Your task to perform on an android device: Open Reddit.com Image 0: 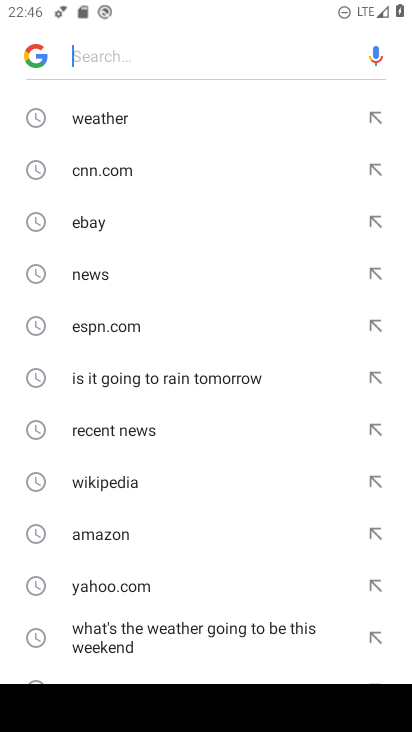
Step 0: press home button
Your task to perform on an android device: Open Reddit.com Image 1: 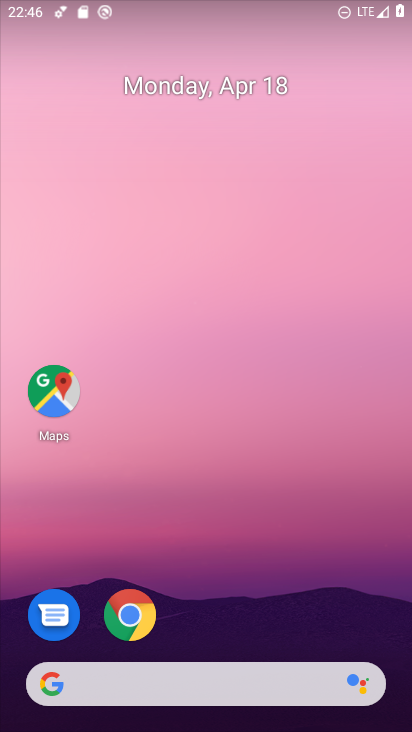
Step 1: click (134, 625)
Your task to perform on an android device: Open Reddit.com Image 2: 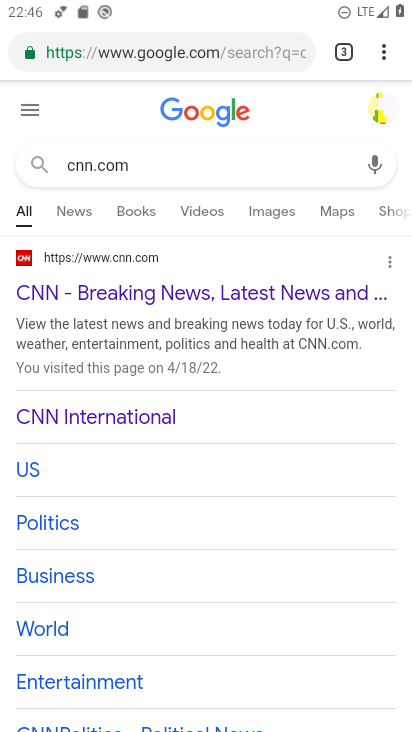
Step 2: click (109, 46)
Your task to perform on an android device: Open Reddit.com Image 3: 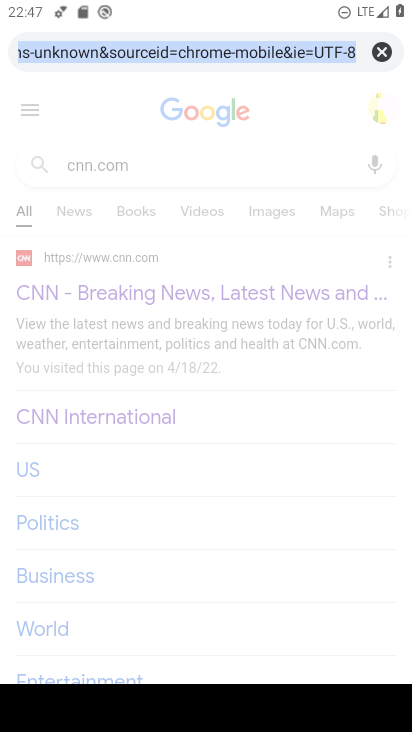
Step 3: click (375, 47)
Your task to perform on an android device: Open Reddit.com Image 4: 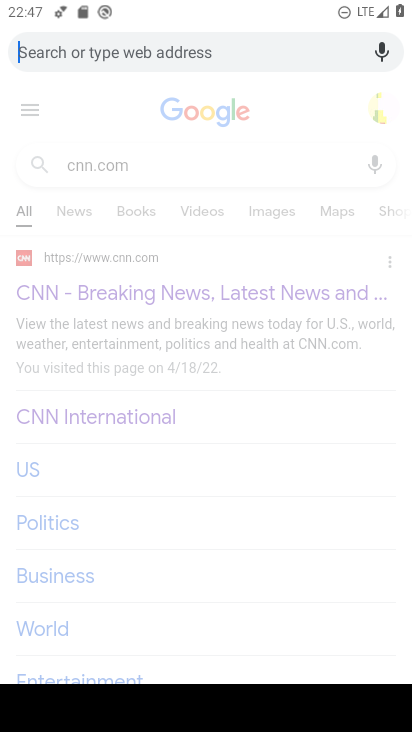
Step 4: click (195, 51)
Your task to perform on an android device: Open Reddit.com Image 5: 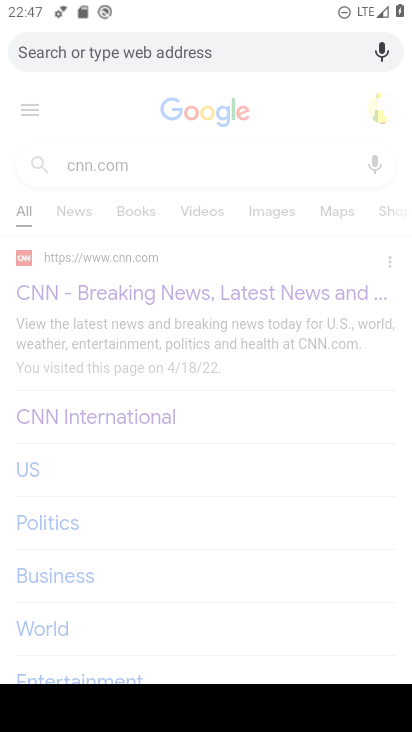
Step 5: type "reddit.com"
Your task to perform on an android device: Open Reddit.com Image 6: 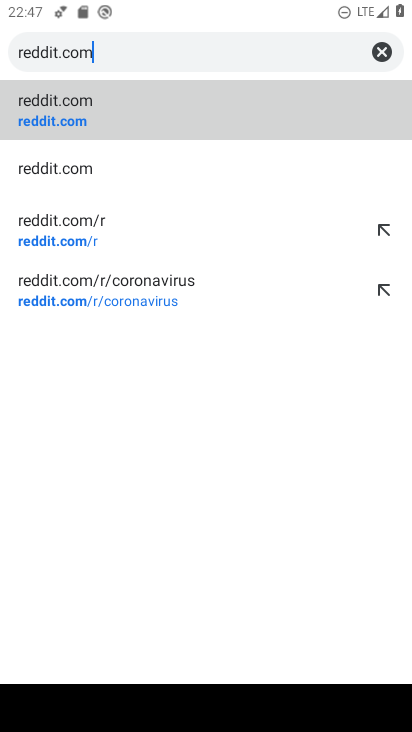
Step 6: click (46, 118)
Your task to perform on an android device: Open Reddit.com Image 7: 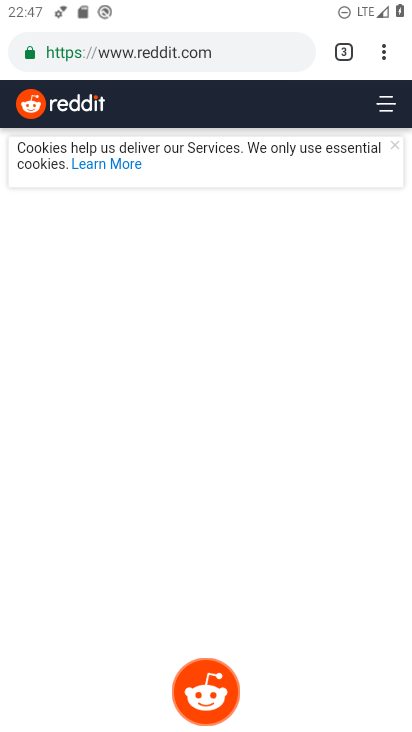
Step 7: task complete